Your task to perform on an android device: turn on data saver in the chrome app Image 0: 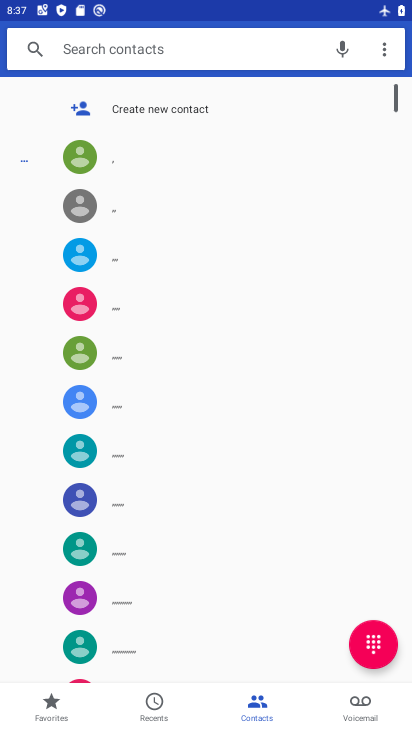
Step 0: press home button
Your task to perform on an android device: turn on data saver in the chrome app Image 1: 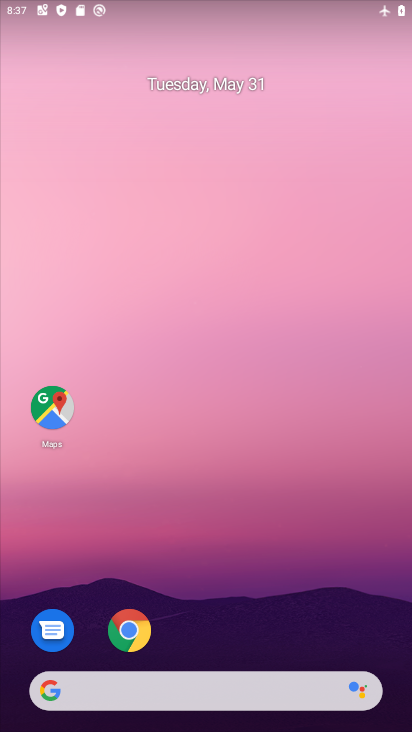
Step 1: click (121, 632)
Your task to perform on an android device: turn on data saver in the chrome app Image 2: 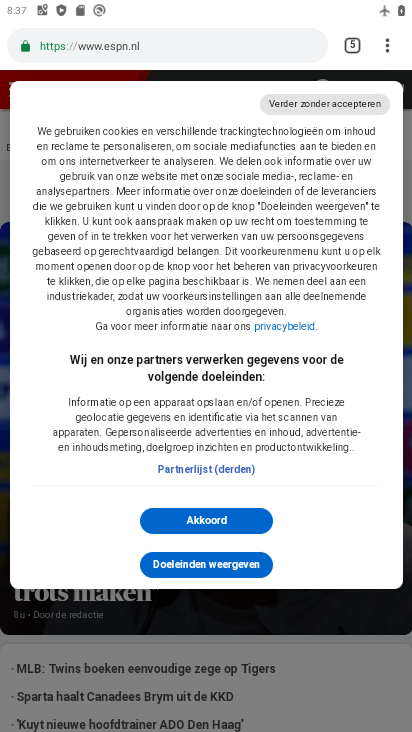
Step 2: click (382, 53)
Your task to perform on an android device: turn on data saver in the chrome app Image 3: 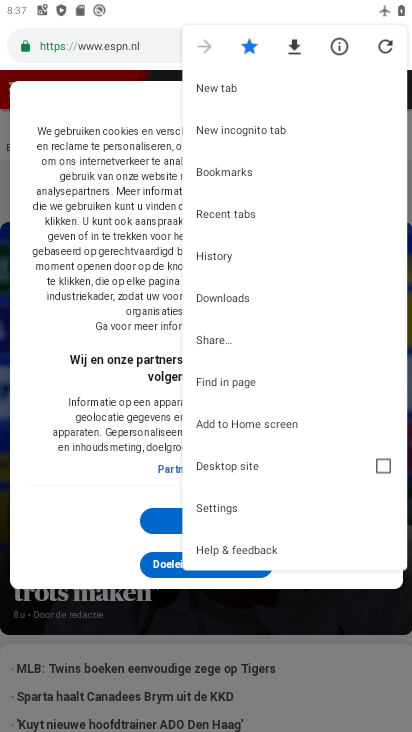
Step 3: click (227, 502)
Your task to perform on an android device: turn on data saver in the chrome app Image 4: 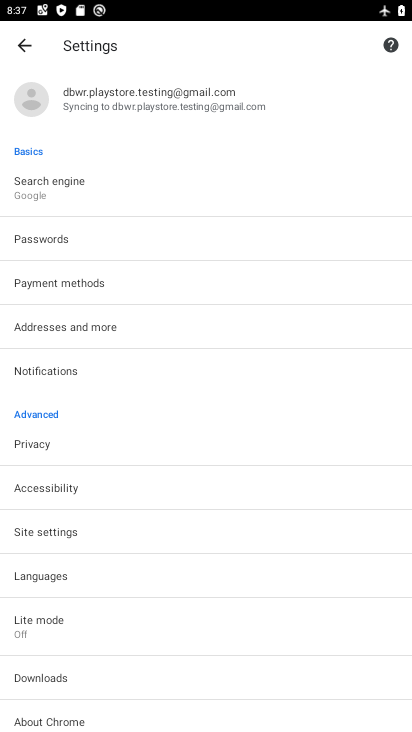
Step 4: click (81, 628)
Your task to perform on an android device: turn on data saver in the chrome app Image 5: 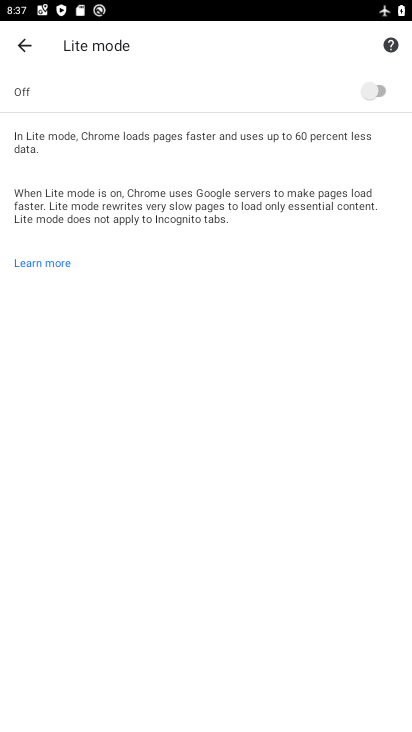
Step 5: click (387, 79)
Your task to perform on an android device: turn on data saver in the chrome app Image 6: 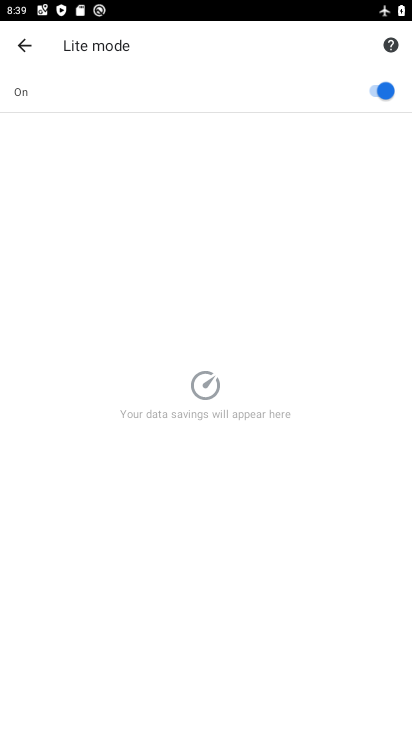
Step 6: task complete